Your task to perform on an android device: Open calendar and show me the fourth week of next month Image 0: 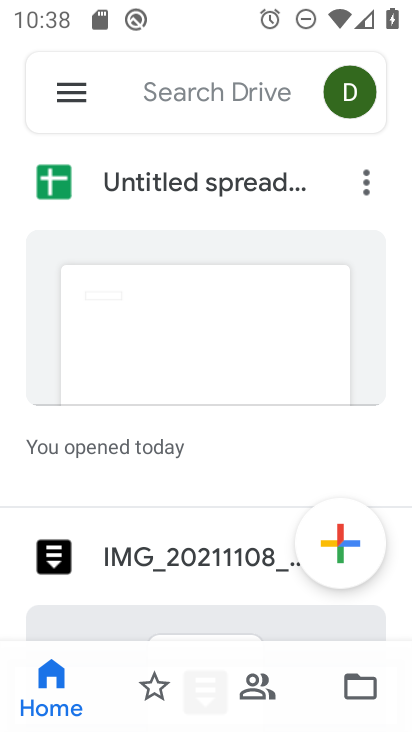
Step 0: press home button
Your task to perform on an android device: Open calendar and show me the fourth week of next month Image 1: 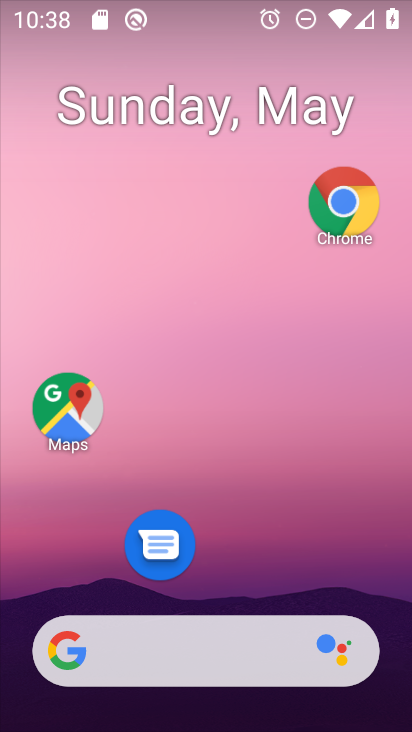
Step 1: drag from (194, 546) to (234, 25)
Your task to perform on an android device: Open calendar and show me the fourth week of next month Image 2: 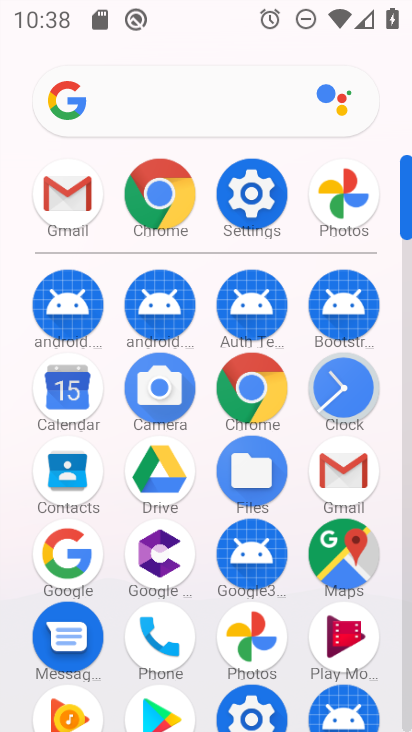
Step 2: click (67, 398)
Your task to perform on an android device: Open calendar and show me the fourth week of next month Image 3: 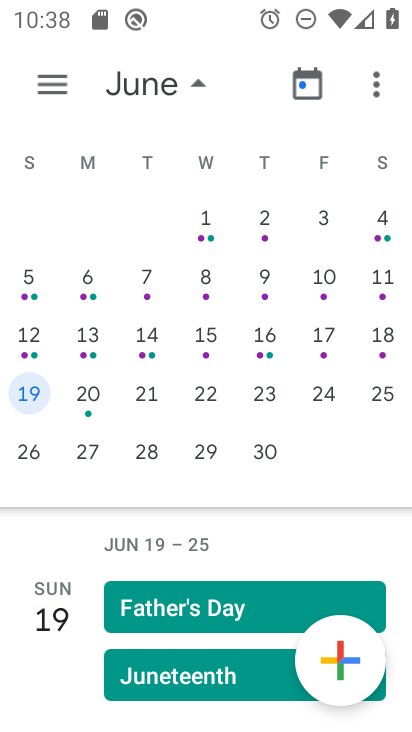
Step 3: task complete